Your task to perform on an android device: Go to Wikipedia Image 0: 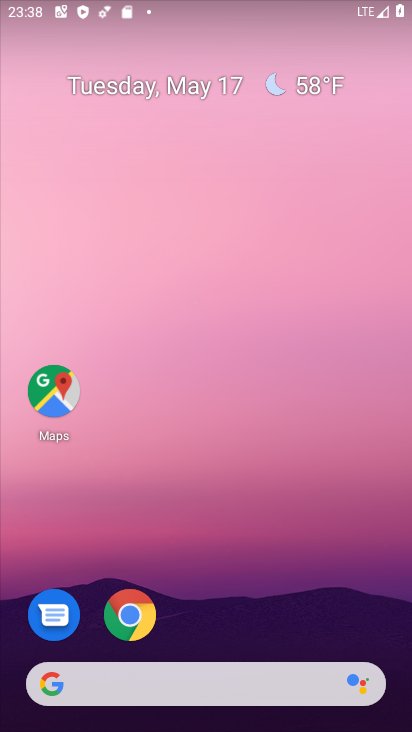
Step 0: click (140, 623)
Your task to perform on an android device: Go to Wikipedia Image 1: 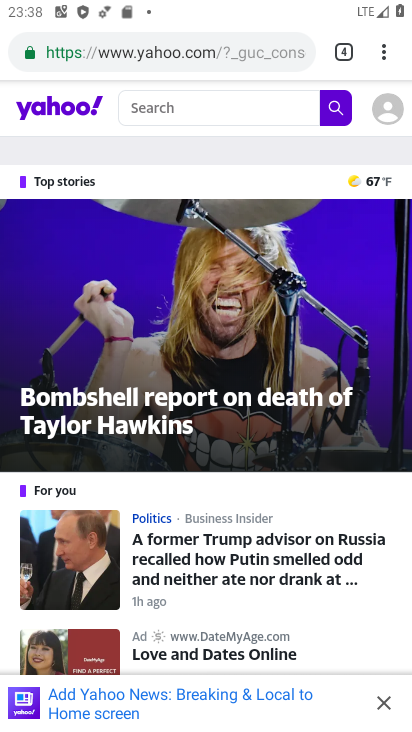
Step 1: click (346, 49)
Your task to perform on an android device: Go to Wikipedia Image 2: 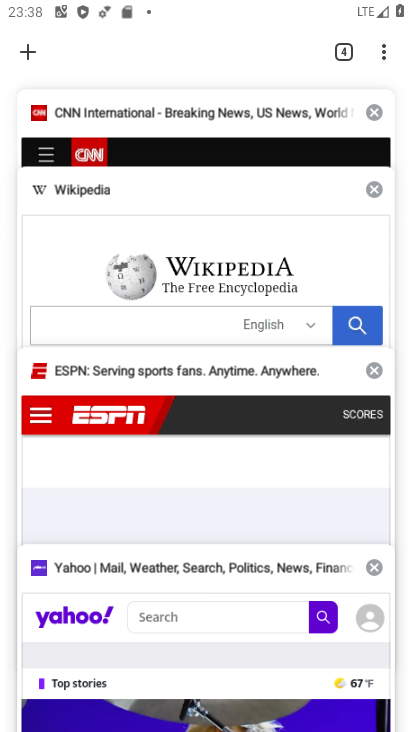
Step 2: click (171, 312)
Your task to perform on an android device: Go to Wikipedia Image 3: 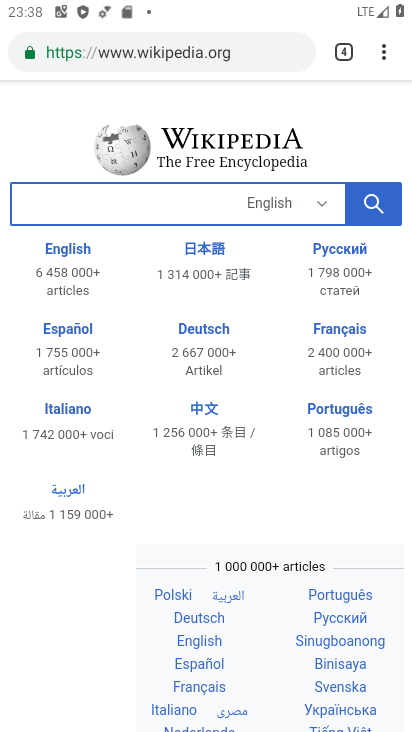
Step 3: task complete